Your task to perform on an android device: Show me recent news Image 0: 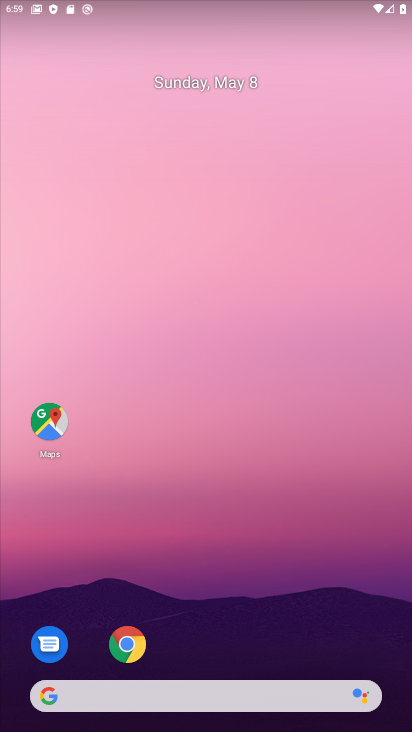
Step 0: click (127, 642)
Your task to perform on an android device: Show me recent news Image 1: 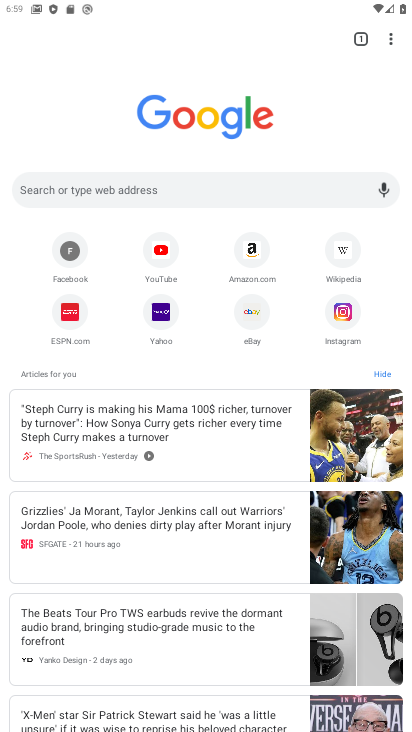
Step 1: click (163, 445)
Your task to perform on an android device: Show me recent news Image 2: 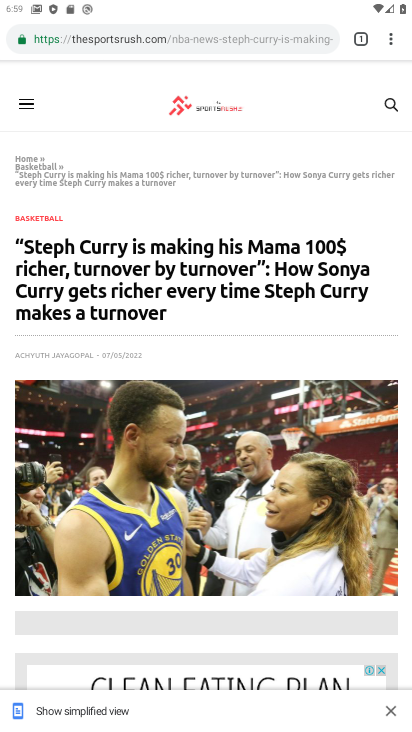
Step 2: task complete